Your task to perform on an android device: check storage Image 0: 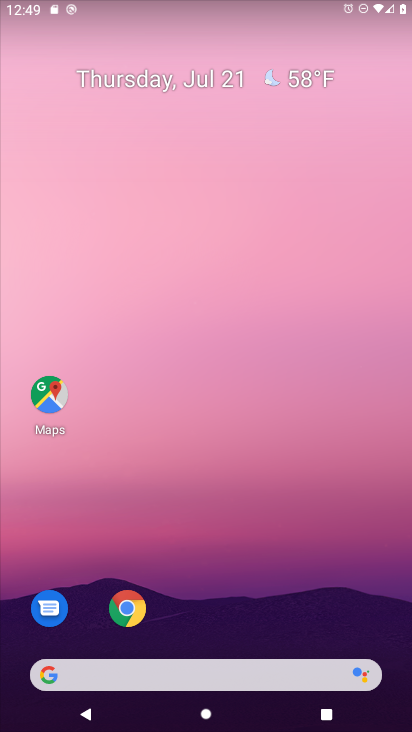
Step 0: press home button
Your task to perform on an android device: check storage Image 1: 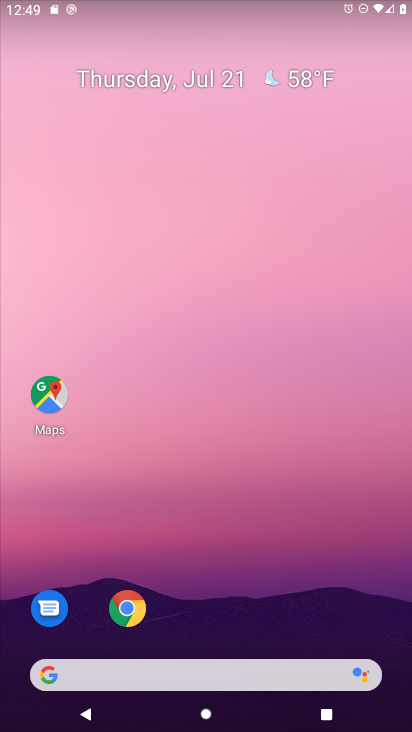
Step 1: drag from (222, 627) to (168, 110)
Your task to perform on an android device: check storage Image 2: 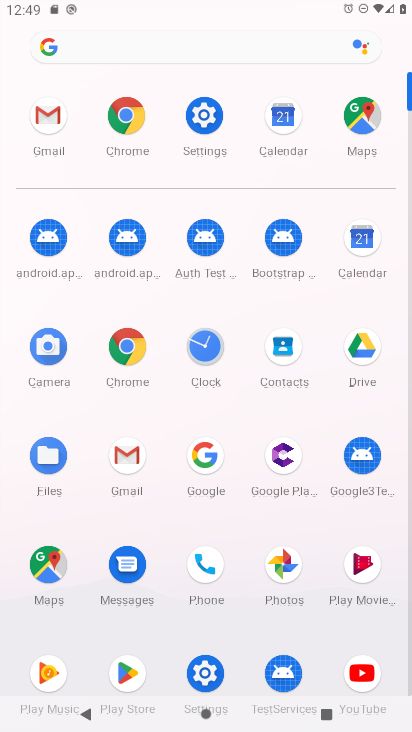
Step 2: click (200, 113)
Your task to perform on an android device: check storage Image 3: 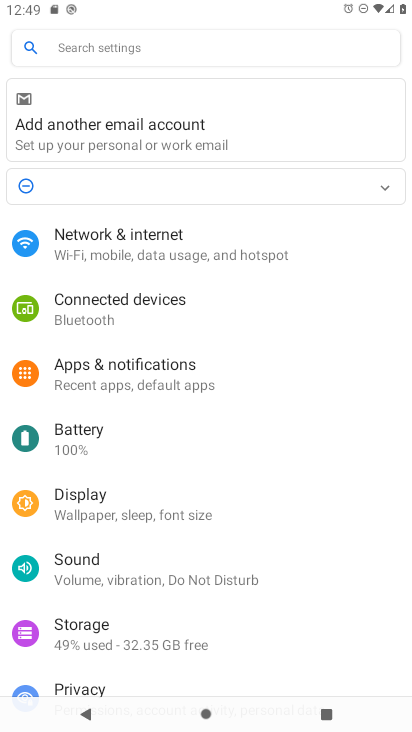
Step 3: click (73, 632)
Your task to perform on an android device: check storage Image 4: 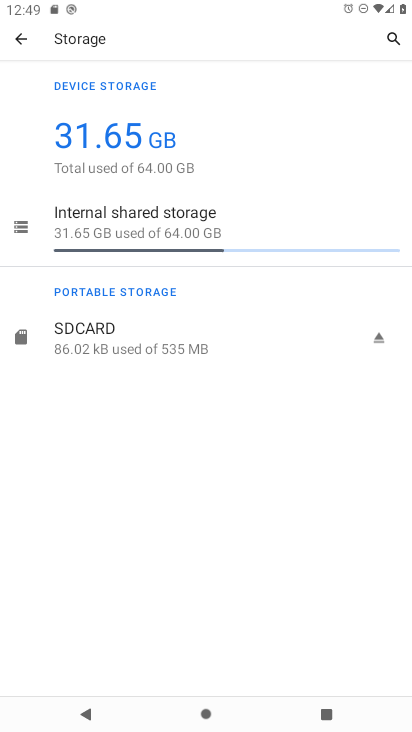
Step 4: task complete